Your task to perform on an android device: Open the calendar and show me this week's events? Image 0: 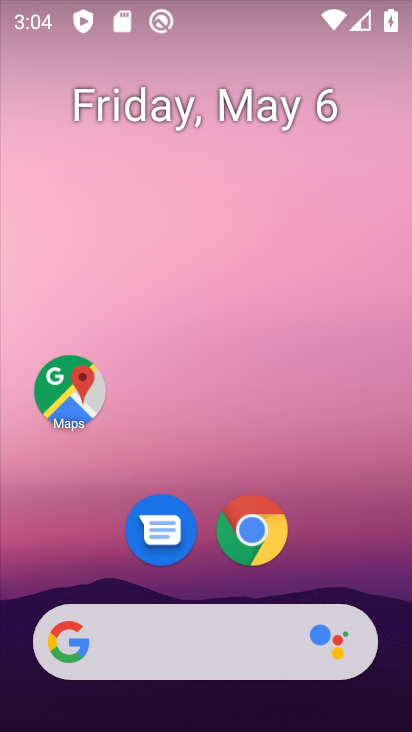
Step 0: drag from (255, 560) to (292, 9)
Your task to perform on an android device: Open the calendar and show me this week's events? Image 1: 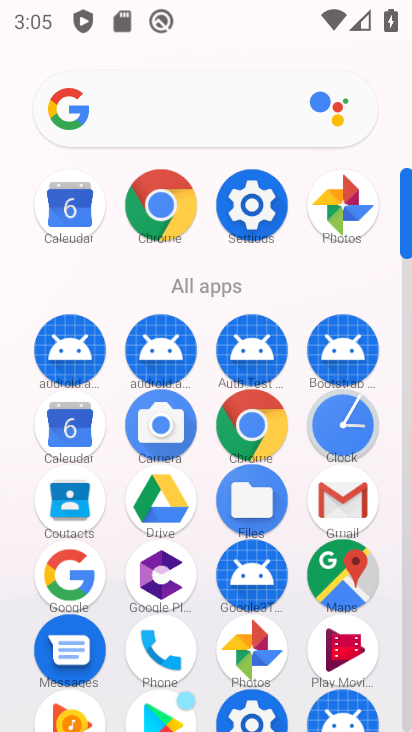
Step 1: click (75, 428)
Your task to perform on an android device: Open the calendar and show me this week's events? Image 2: 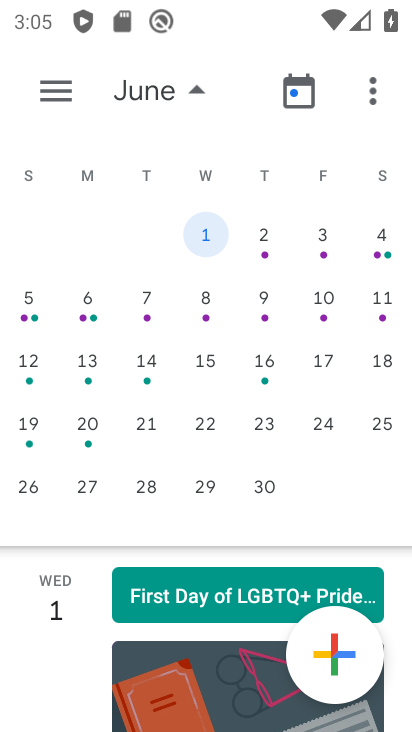
Step 2: drag from (103, 358) to (408, 325)
Your task to perform on an android device: Open the calendar and show me this week's events? Image 3: 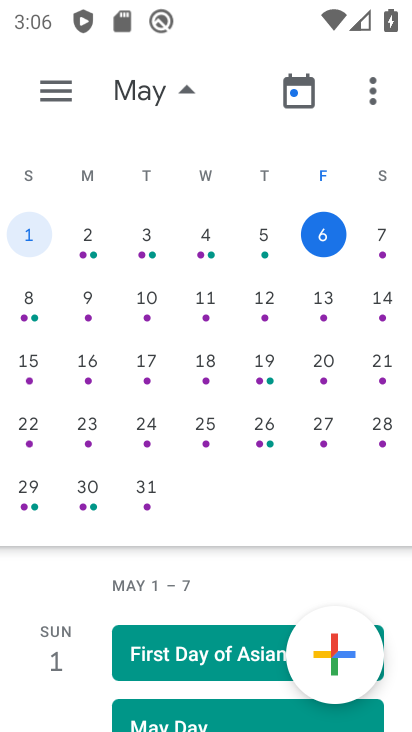
Step 3: click (29, 301)
Your task to perform on an android device: Open the calendar and show me this week's events? Image 4: 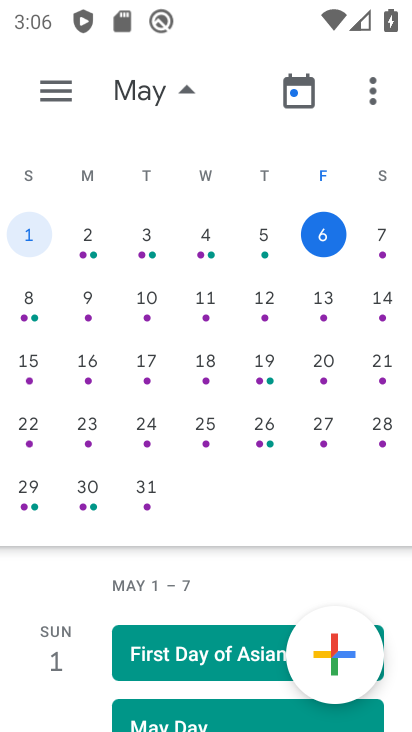
Step 4: click (30, 326)
Your task to perform on an android device: Open the calendar and show me this week's events? Image 5: 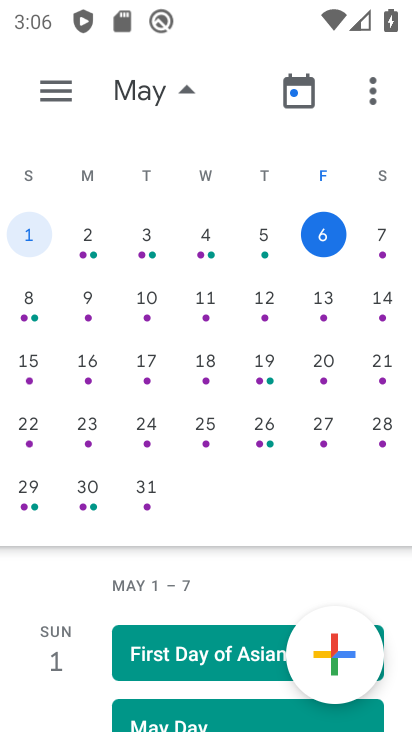
Step 5: click (30, 326)
Your task to perform on an android device: Open the calendar and show me this week's events? Image 6: 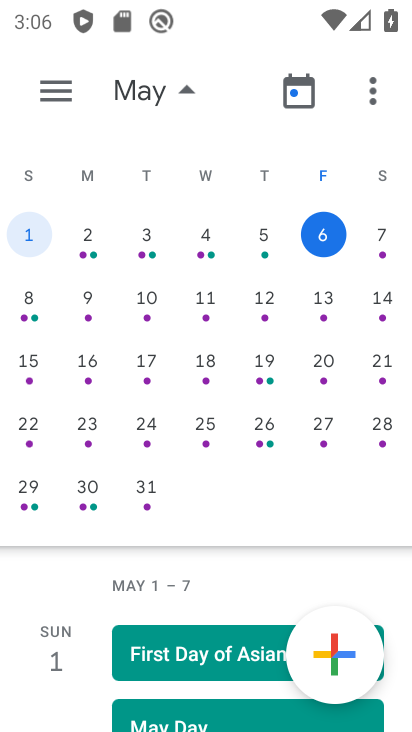
Step 6: click (35, 303)
Your task to perform on an android device: Open the calendar and show me this week's events? Image 7: 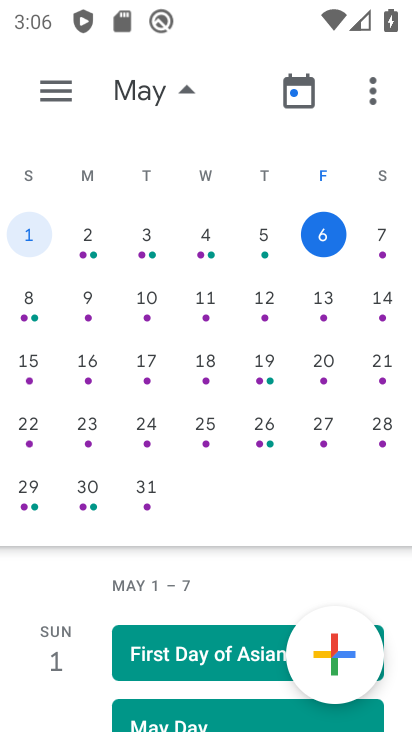
Step 7: click (40, 311)
Your task to perform on an android device: Open the calendar and show me this week's events? Image 8: 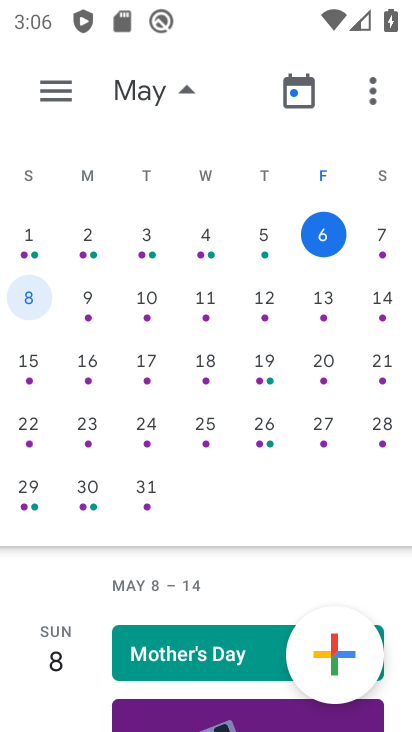
Step 8: task complete